Your task to perform on an android device: Go to Amazon Image 0: 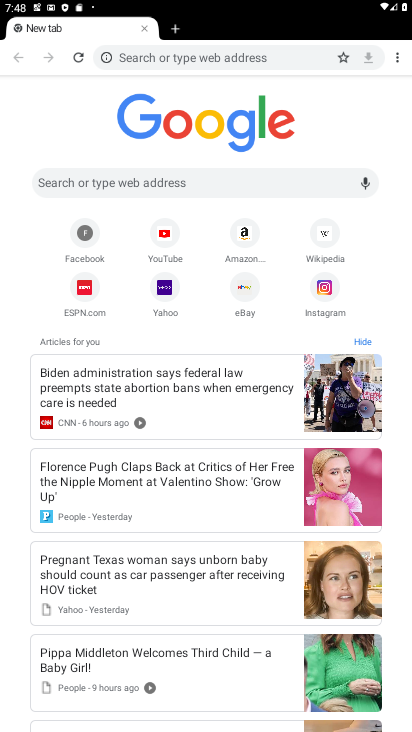
Step 0: click (320, 243)
Your task to perform on an android device: Go to Amazon Image 1: 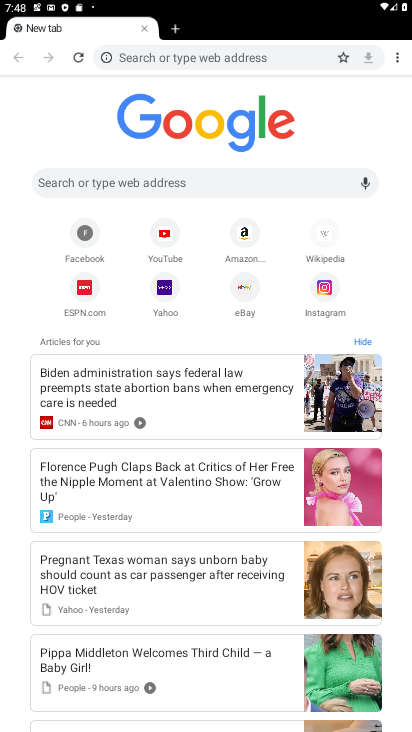
Step 1: click (320, 240)
Your task to perform on an android device: Go to Amazon Image 2: 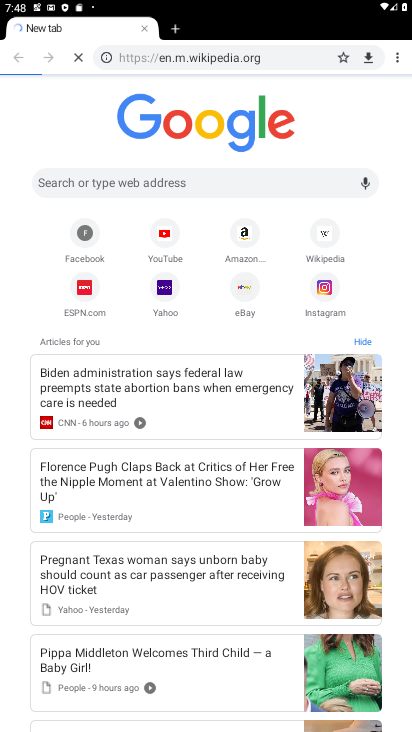
Step 2: click (320, 240)
Your task to perform on an android device: Go to Amazon Image 3: 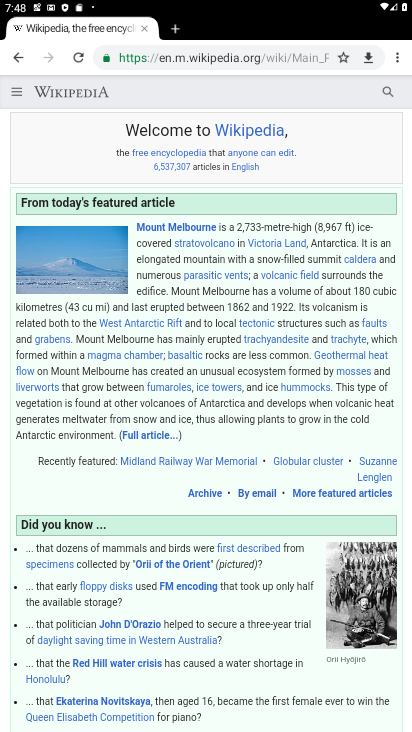
Step 3: task complete